Your task to perform on an android device: Go to settings Image 0: 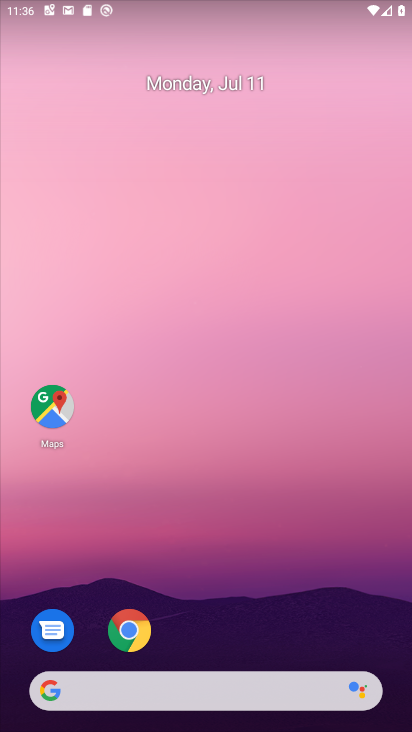
Step 0: drag from (237, 664) to (232, 210)
Your task to perform on an android device: Go to settings Image 1: 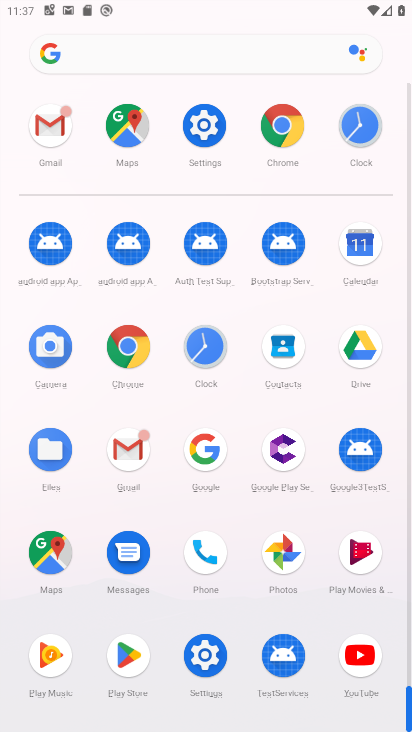
Step 1: click (203, 133)
Your task to perform on an android device: Go to settings Image 2: 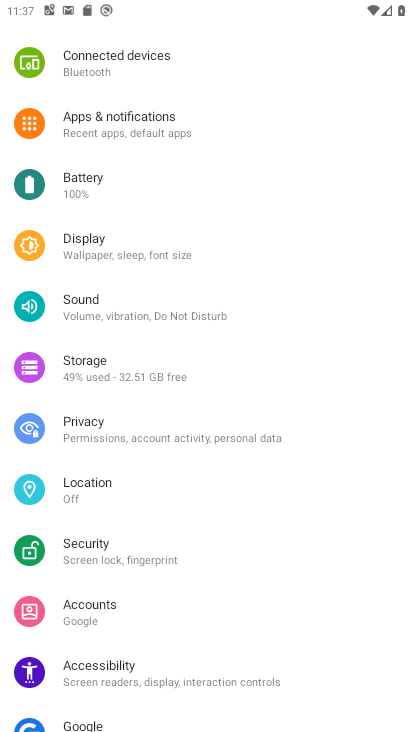
Step 2: task complete